Your task to perform on an android device: Go to sound settings Image 0: 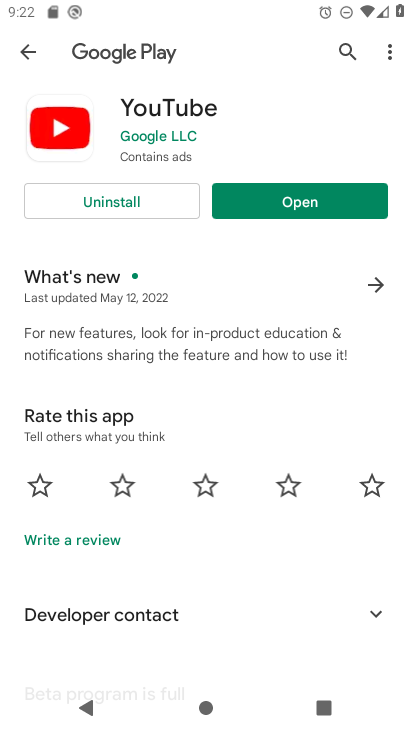
Step 0: press home button
Your task to perform on an android device: Go to sound settings Image 1: 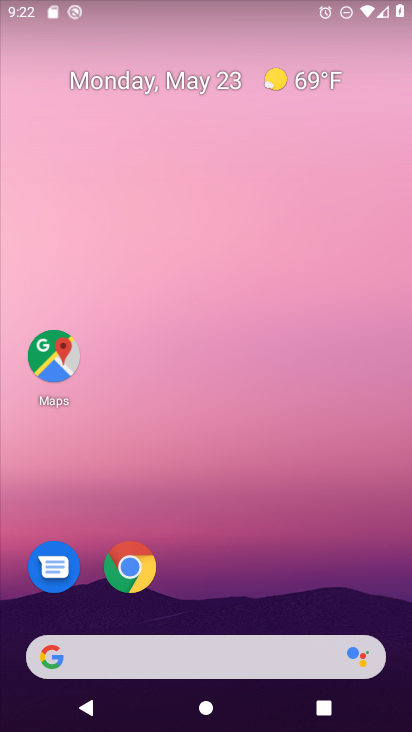
Step 1: drag from (219, 616) to (205, 16)
Your task to perform on an android device: Go to sound settings Image 2: 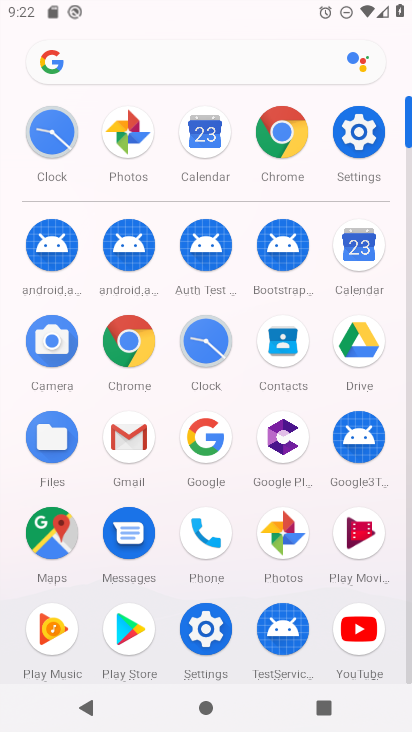
Step 2: click (366, 142)
Your task to perform on an android device: Go to sound settings Image 3: 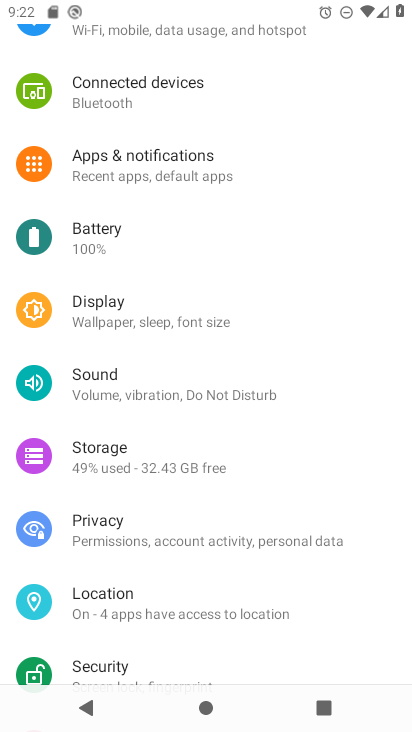
Step 3: click (152, 396)
Your task to perform on an android device: Go to sound settings Image 4: 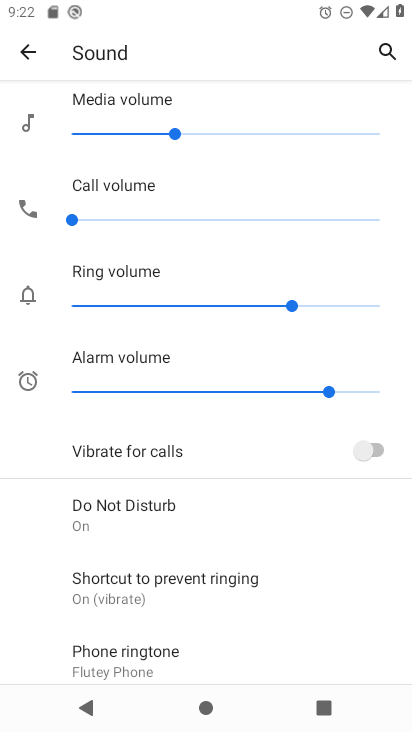
Step 4: task complete